Your task to perform on an android device: open app "Cash App" (install if not already installed), go to login, and select forgot password Image 0: 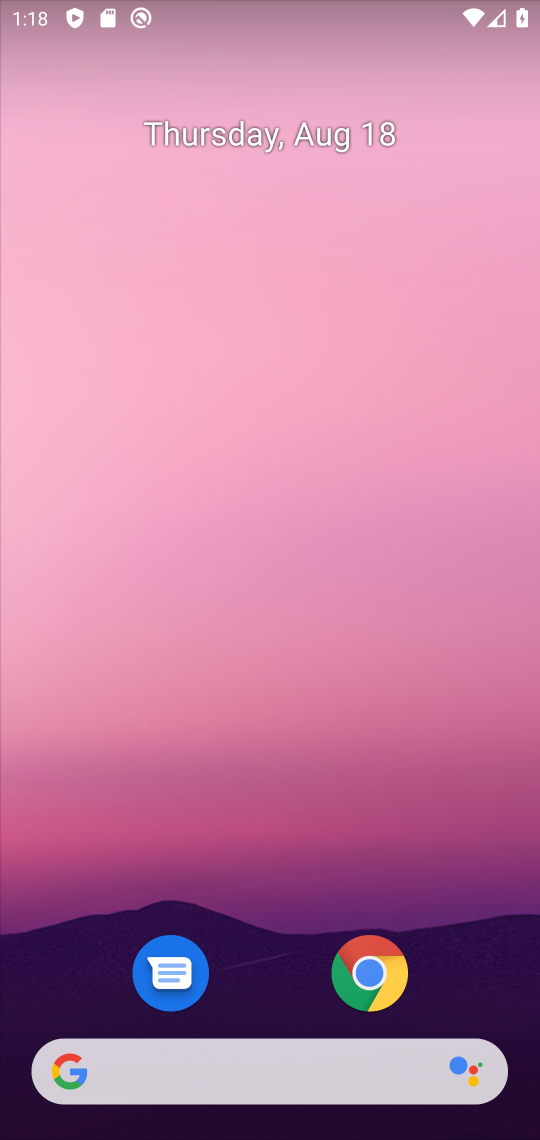
Step 0: drag from (283, 1033) to (218, 0)
Your task to perform on an android device: open app "Cash App" (install if not already installed), go to login, and select forgot password Image 1: 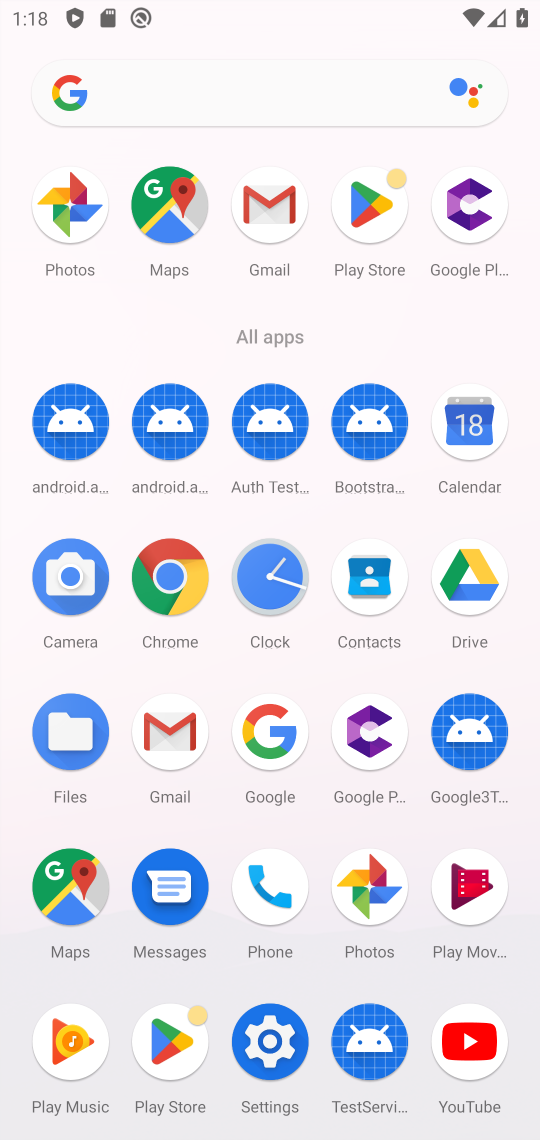
Step 1: click (372, 210)
Your task to perform on an android device: open app "Cash App" (install if not already installed), go to login, and select forgot password Image 2: 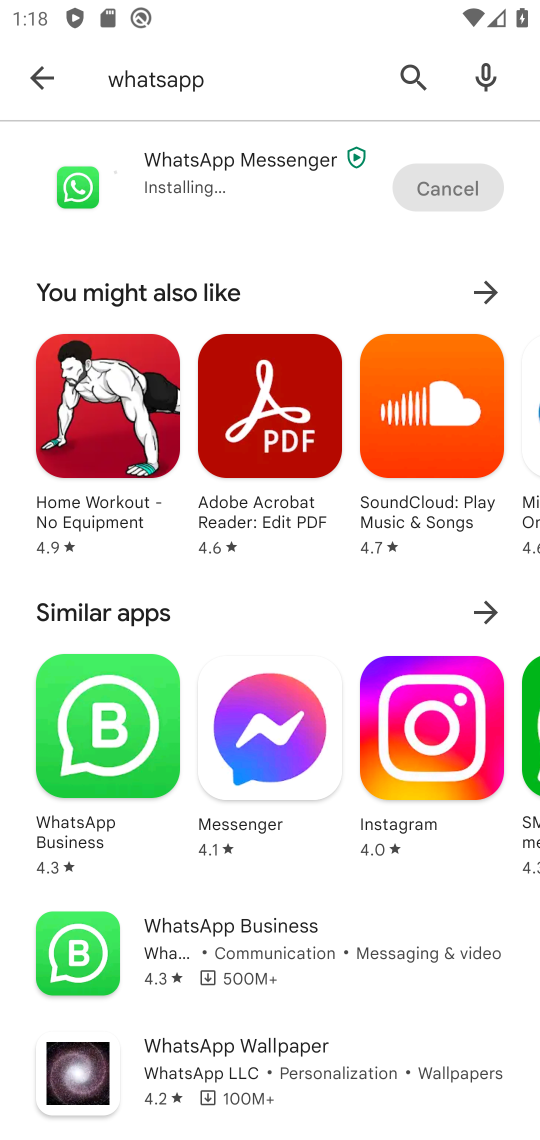
Step 2: click (400, 85)
Your task to perform on an android device: open app "Cash App" (install if not already installed), go to login, and select forgot password Image 3: 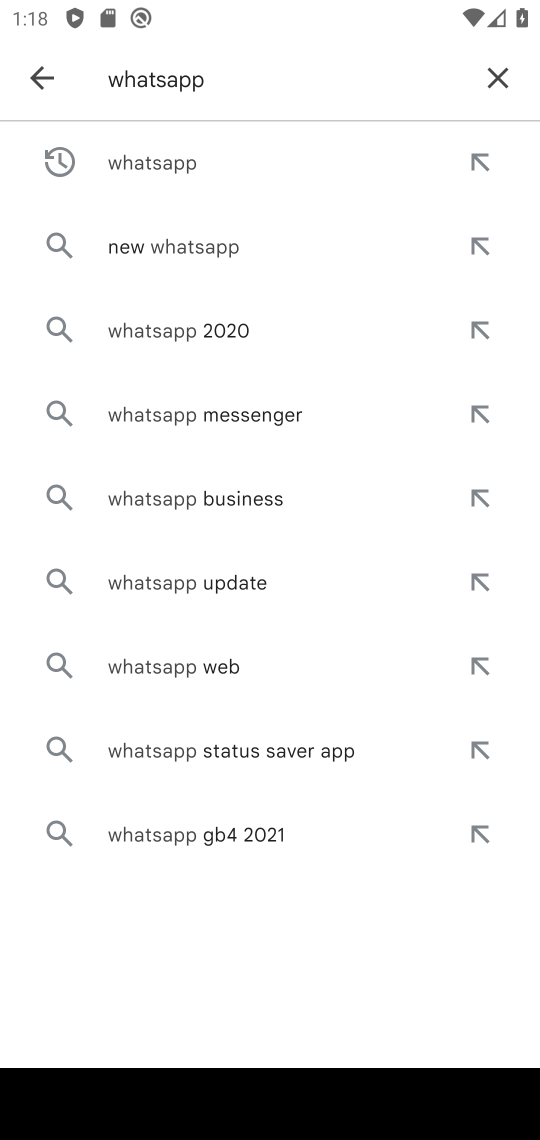
Step 3: click (400, 85)
Your task to perform on an android device: open app "Cash App" (install if not already installed), go to login, and select forgot password Image 4: 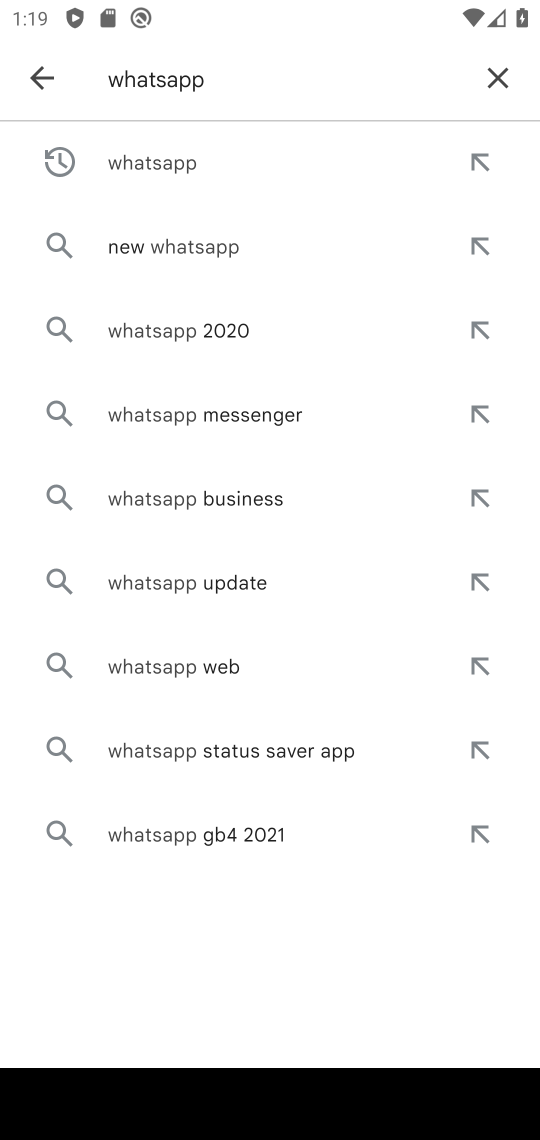
Step 4: click (493, 87)
Your task to perform on an android device: open app "Cash App" (install if not already installed), go to login, and select forgot password Image 5: 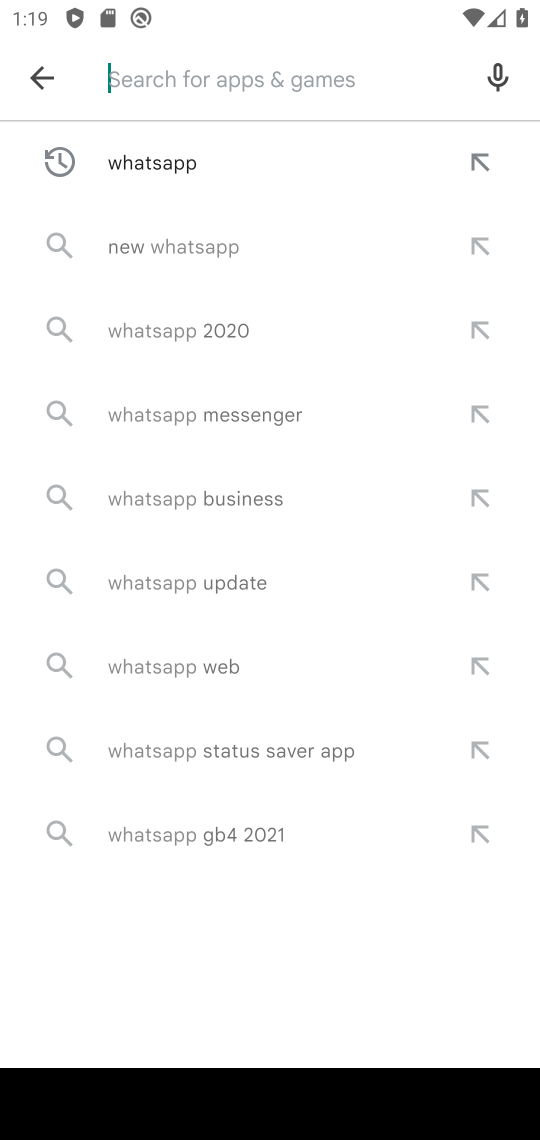
Step 5: type "cash app"
Your task to perform on an android device: open app "Cash App" (install if not already installed), go to login, and select forgot password Image 6: 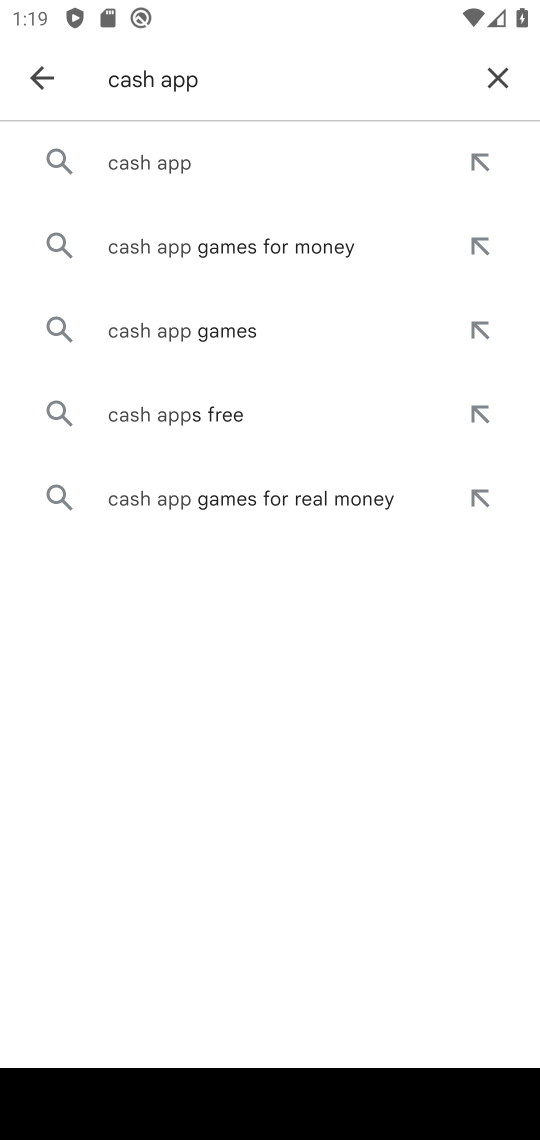
Step 6: click (230, 152)
Your task to perform on an android device: open app "Cash App" (install if not already installed), go to login, and select forgot password Image 7: 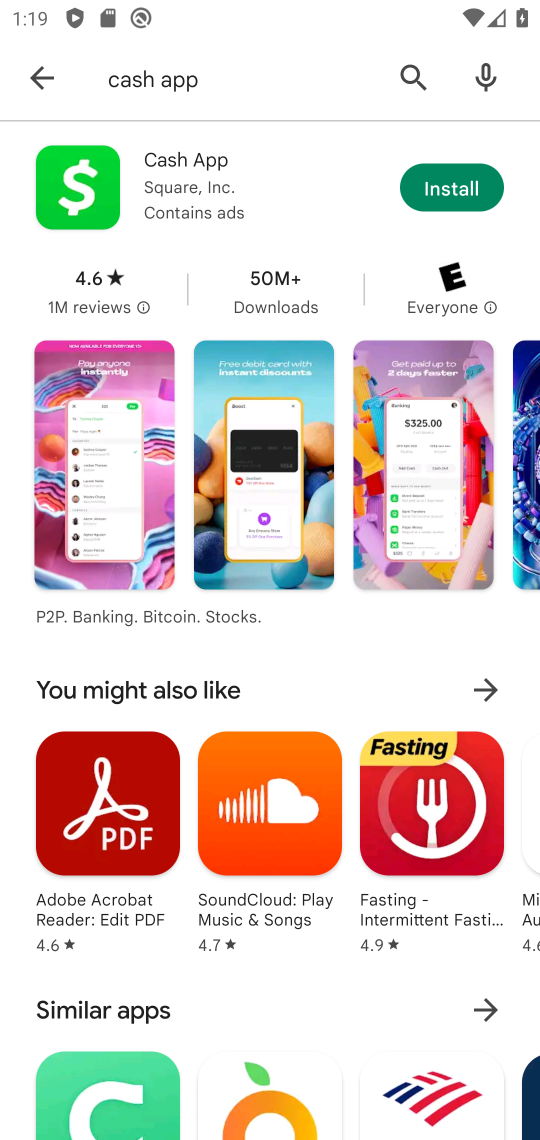
Step 7: click (466, 189)
Your task to perform on an android device: open app "Cash App" (install if not already installed), go to login, and select forgot password Image 8: 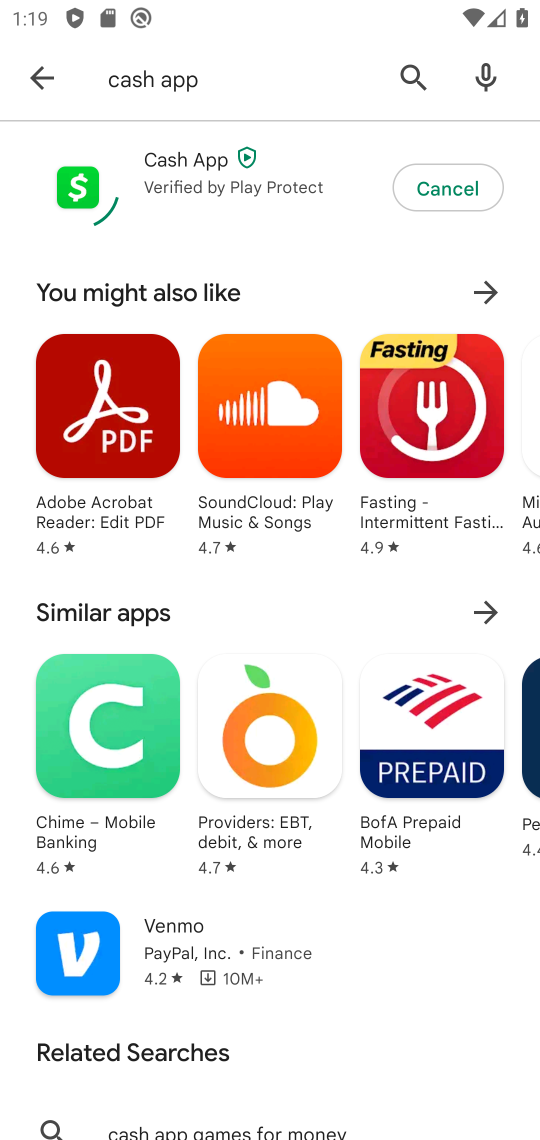
Step 8: task complete